Your task to perform on an android device: add a contact Image 0: 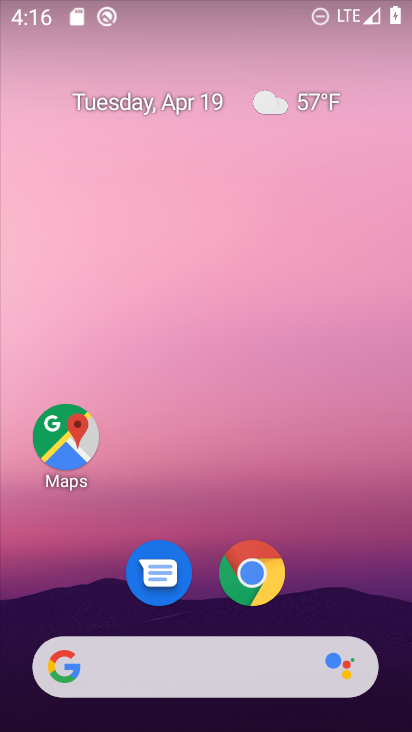
Step 0: drag from (365, 619) to (342, 28)
Your task to perform on an android device: add a contact Image 1: 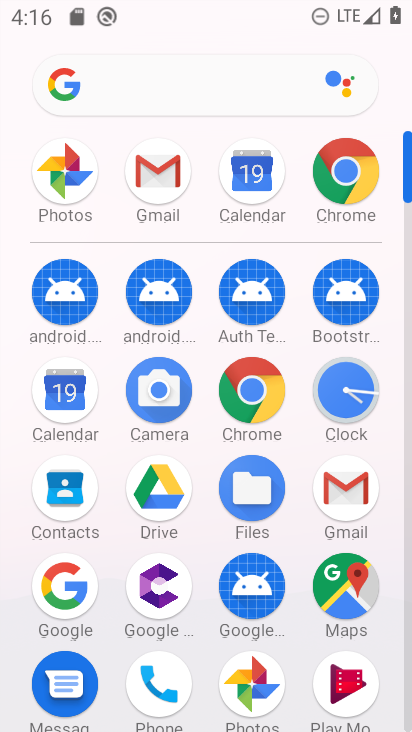
Step 1: click (56, 502)
Your task to perform on an android device: add a contact Image 2: 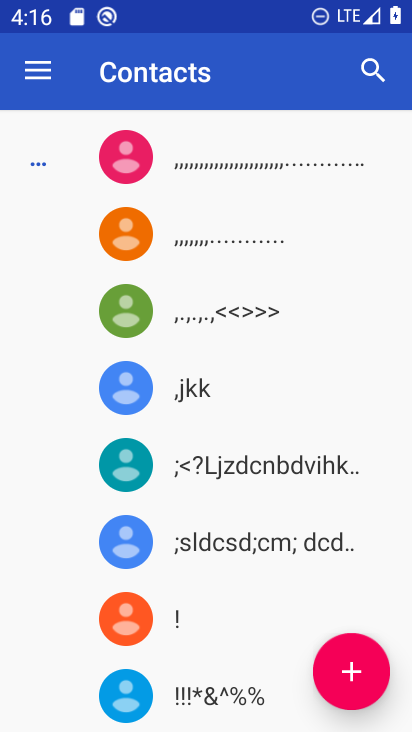
Step 2: click (352, 673)
Your task to perform on an android device: add a contact Image 3: 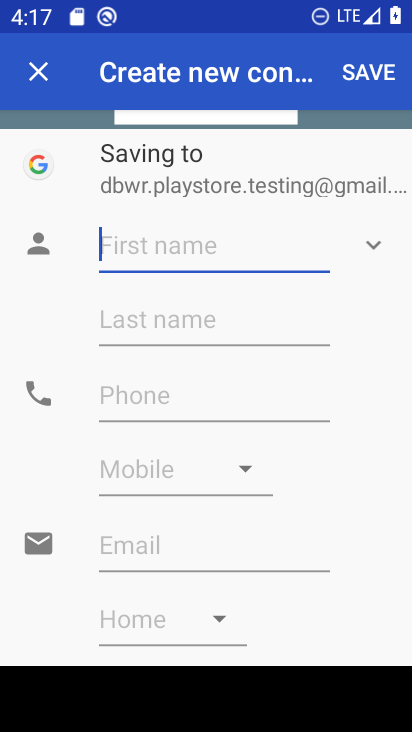
Step 3: type "nikki"
Your task to perform on an android device: add a contact Image 4: 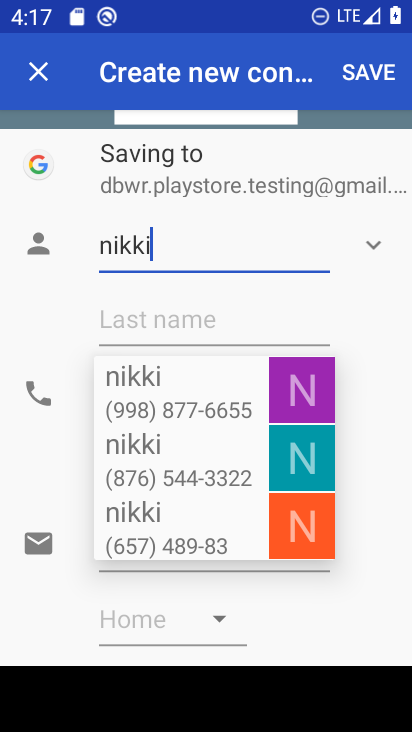
Step 4: click (398, 395)
Your task to perform on an android device: add a contact Image 5: 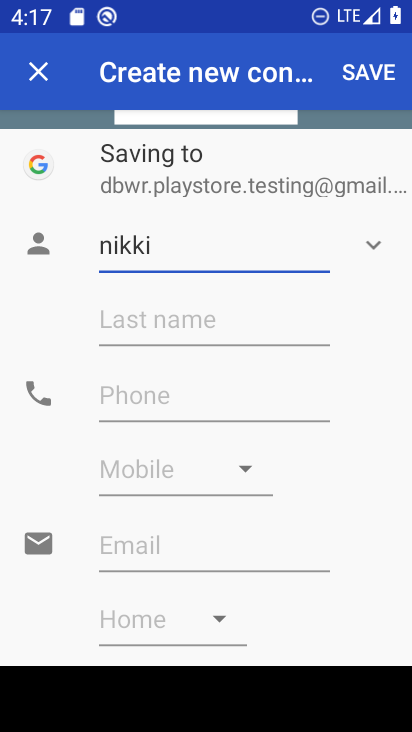
Step 5: click (285, 412)
Your task to perform on an android device: add a contact Image 6: 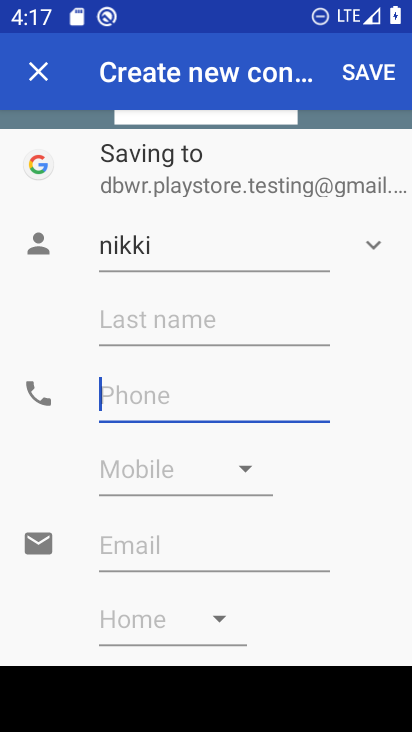
Step 6: type "6789909876"
Your task to perform on an android device: add a contact Image 7: 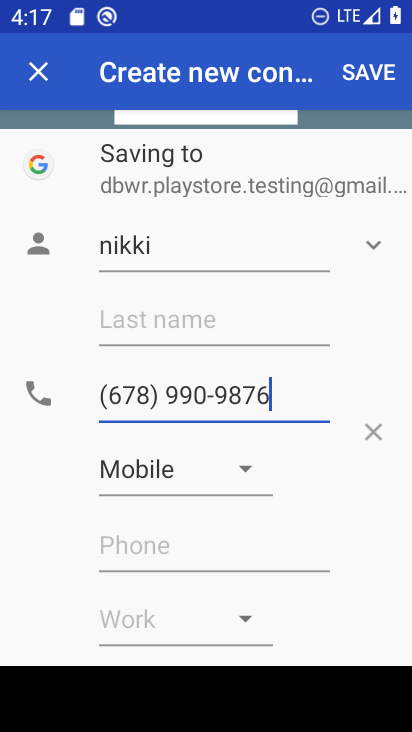
Step 7: click (385, 78)
Your task to perform on an android device: add a contact Image 8: 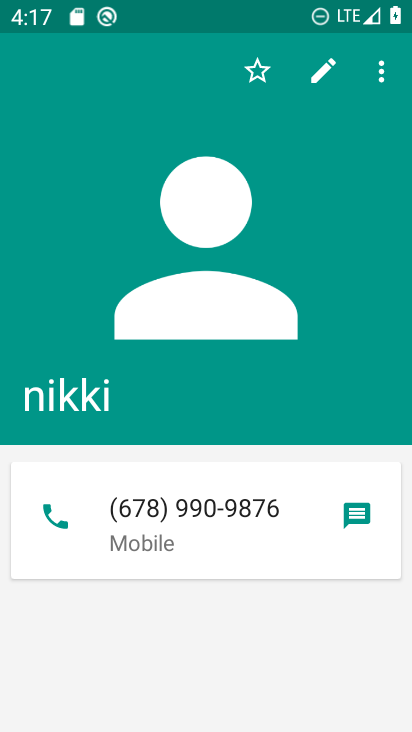
Step 8: task complete